Your task to perform on an android device: turn off notifications settings in the gmail app Image 0: 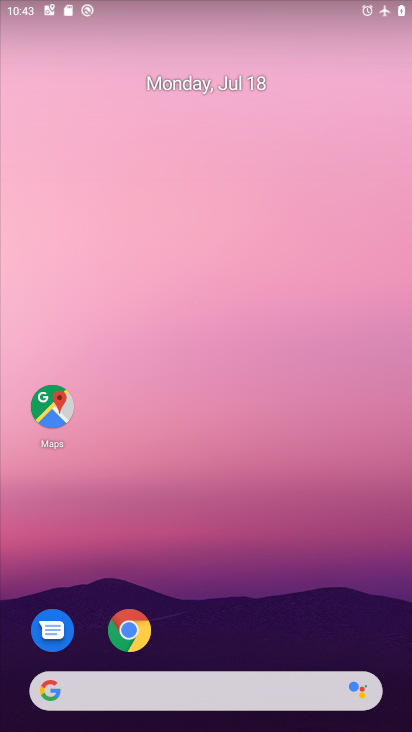
Step 0: drag from (212, 617) to (187, 95)
Your task to perform on an android device: turn off notifications settings in the gmail app Image 1: 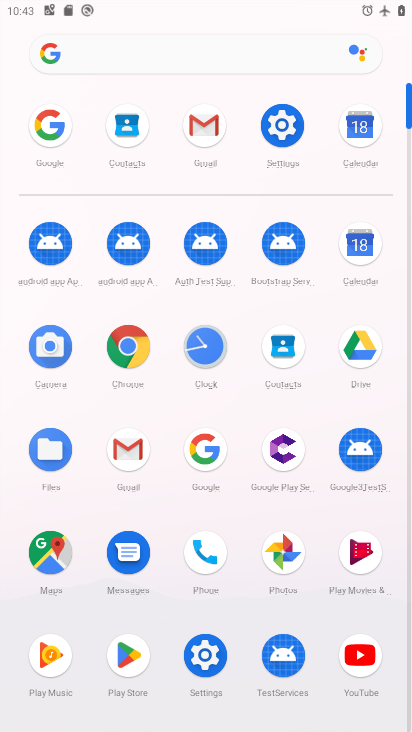
Step 1: click (203, 116)
Your task to perform on an android device: turn off notifications settings in the gmail app Image 2: 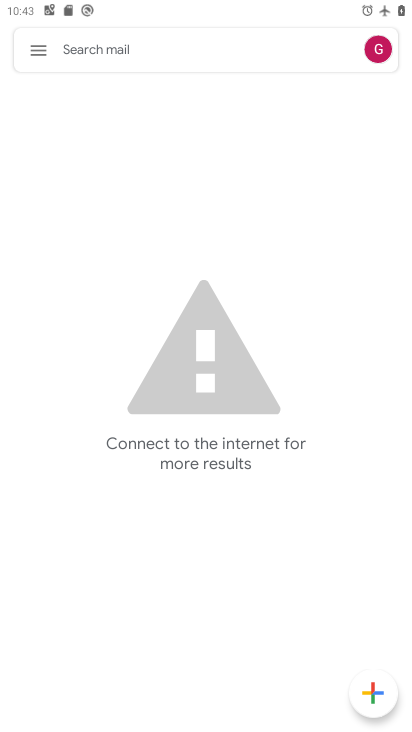
Step 2: click (32, 52)
Your task to perform on an android device: turn off notifications settings in the gmail app Image 3: 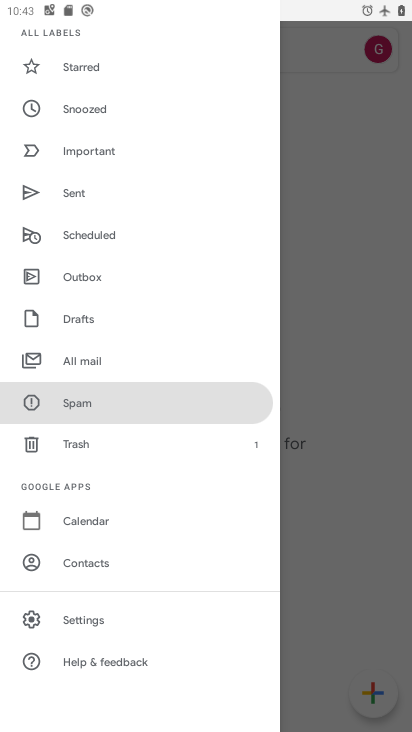
Step 3: click (101, 623)
Your task to perform on an android device: turn off notifications settings in the gmail app Image 4: 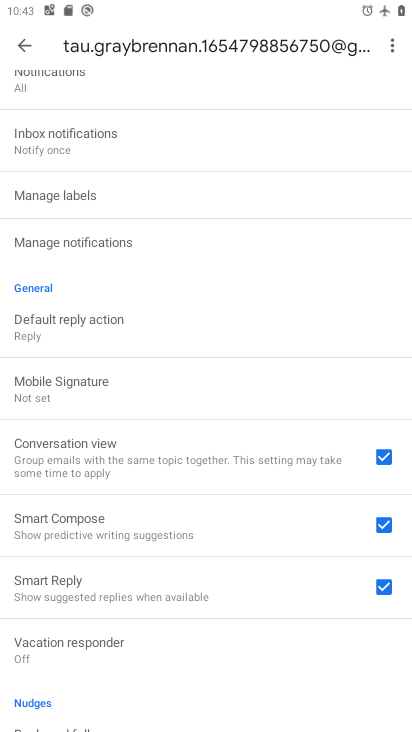
Step 4: click (107, 251)
Your task to perform on an android device: turn off notifications settings in the gmail app Image 5: 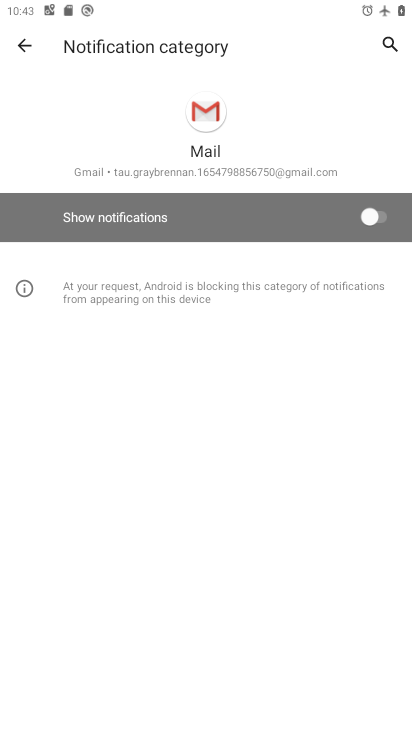
Step 5: task complete